Your task to perform on an android device: open app "Move to iOS" (install if not already installed) Image 0: 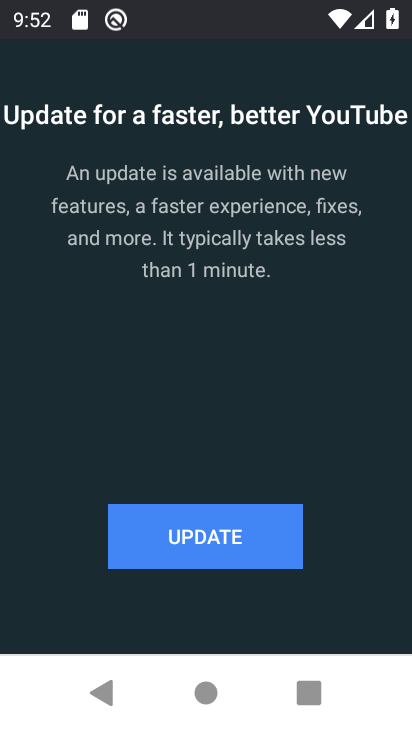
Step 0: press home button
Your task to perform on an android device: open app "Move to iOS" (install if not already installed) Image 1: 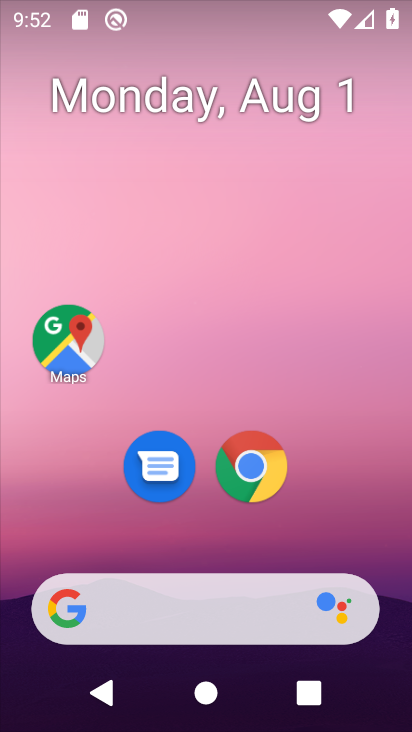
Step 1: drag from (238, 727) to (245, 31)
Your task to perform on an android device: open app "Move to iOS" (install if not already installed) Image 2: 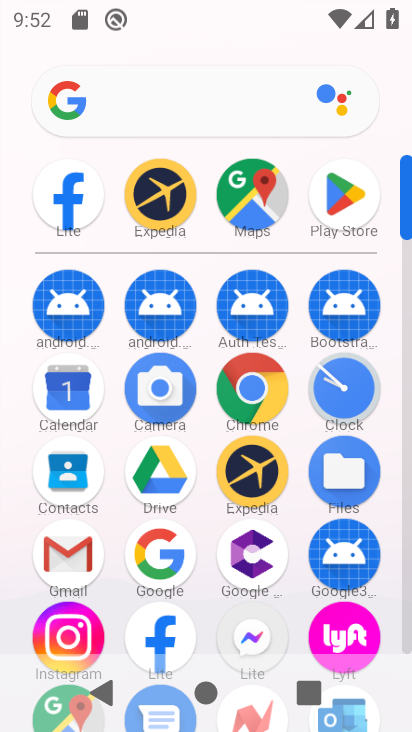
Step 2: click (342, 187)
Your task to perform on an android device: open app "Move to iOS" (install if not already installed) Image 3: 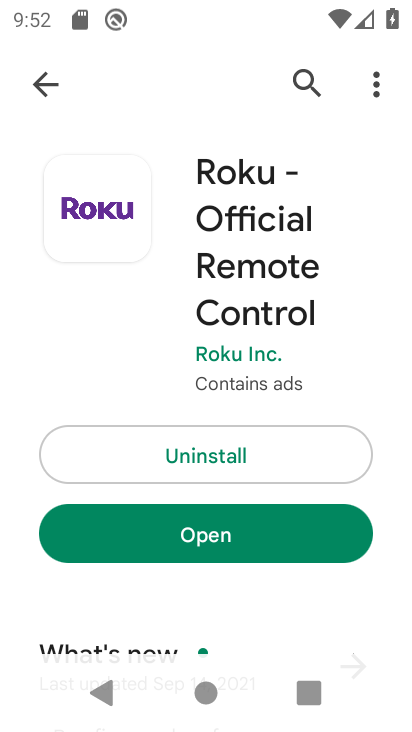
Step 3: click (305, 76)
Your task to perform on an android device: open app "Move to iOS" (install if not already installed) Image 4: 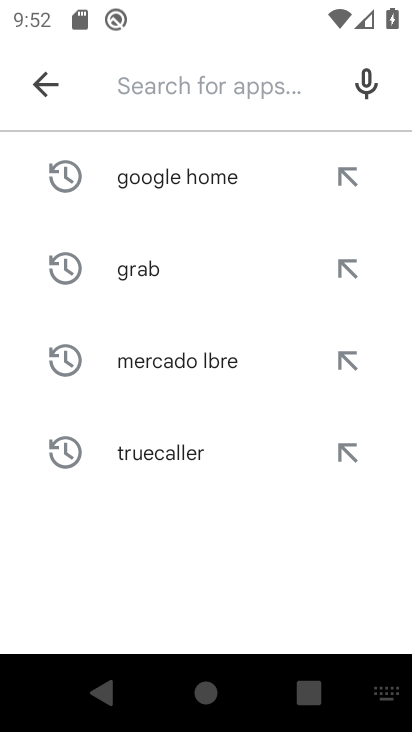
Step 4: type "Move to iOS"
Your task to perform on an android device: open app "Move to iOS" (install if not already installed) Image 5: 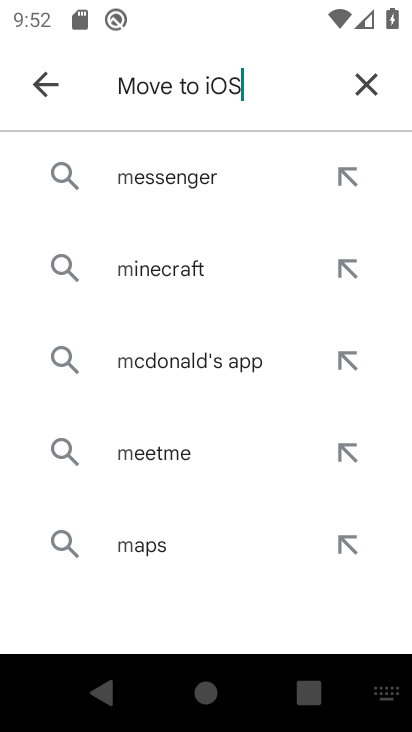
Step 5: type ""
Your task to perform on an android device: open app "Move to iOS" (install if not already installed) Image 6: 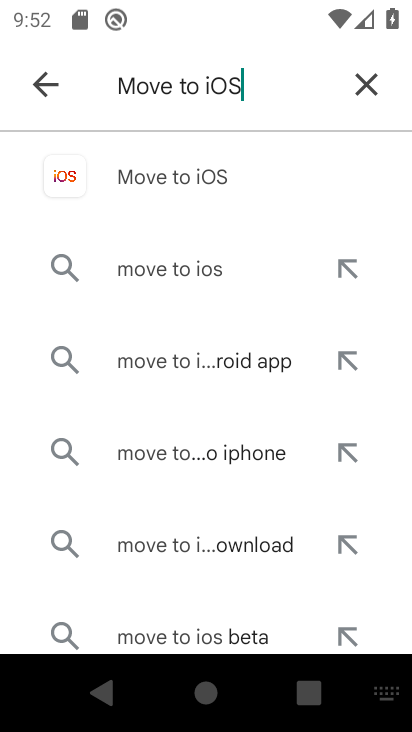
Step 6: click (175, 180)
Your task to perform on an android device: open app "Move to iOS" (install if not already installed) Image 7: 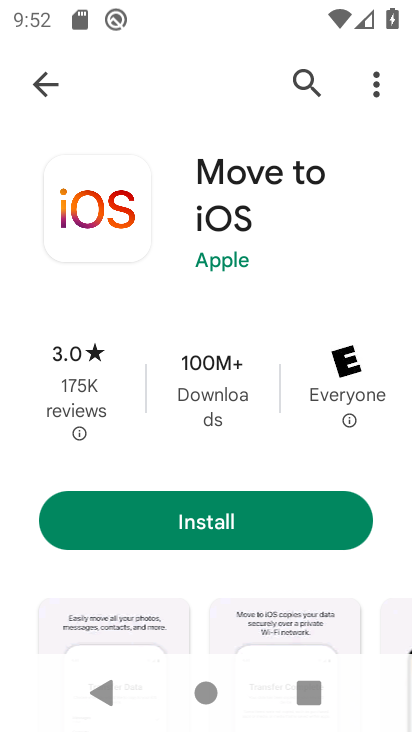
Step 7: click (220, 521)
Your task to perform on an android device: open app "Move to iOS" (install if not already installed) Image 8: 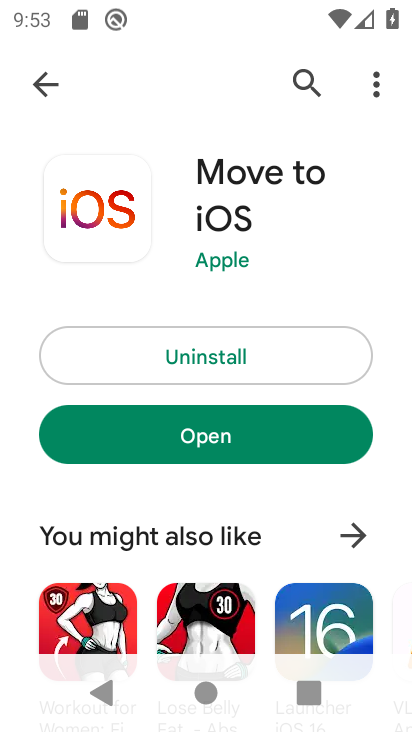
Step 8: task complete